Your task to perform on an android device: toggle sleep mode Image 0: 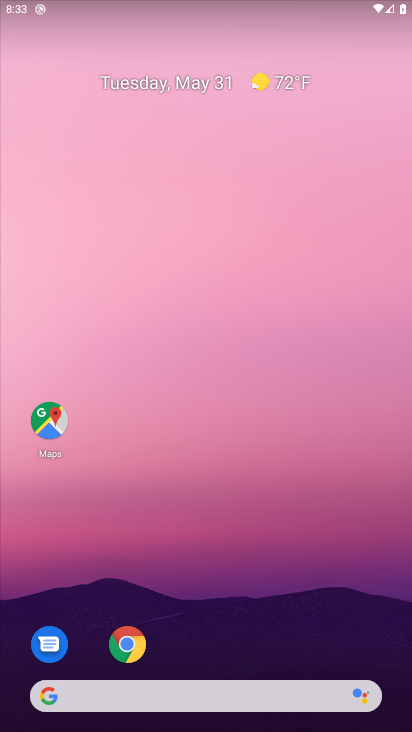
Step 0: press home button
Your task to perform on an android device: toggle sleep mode Image 1: 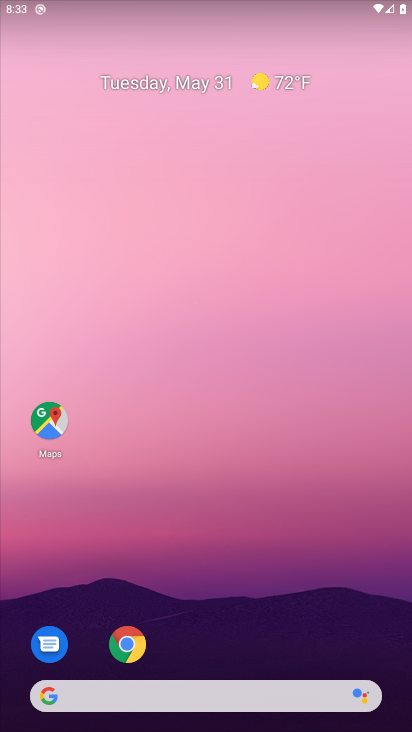
Step 1: drag from (209, 661) to (217, 131)
Your task to perform on an android device: toggle sleep mode Image 2: 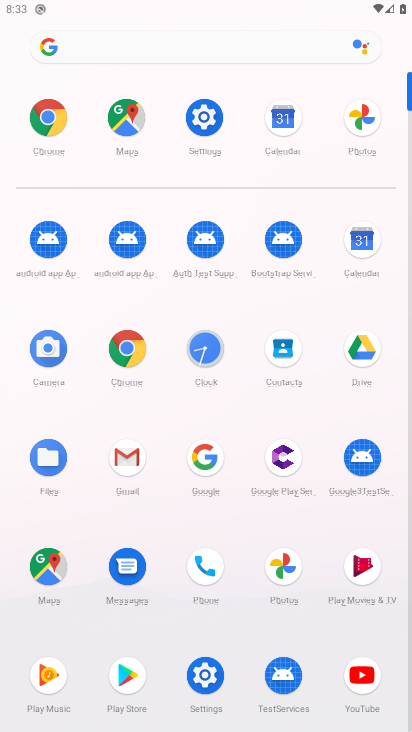
Step 2: click (201, 108)
Your task to perform on an android device: toggle sleep mode Image 3: 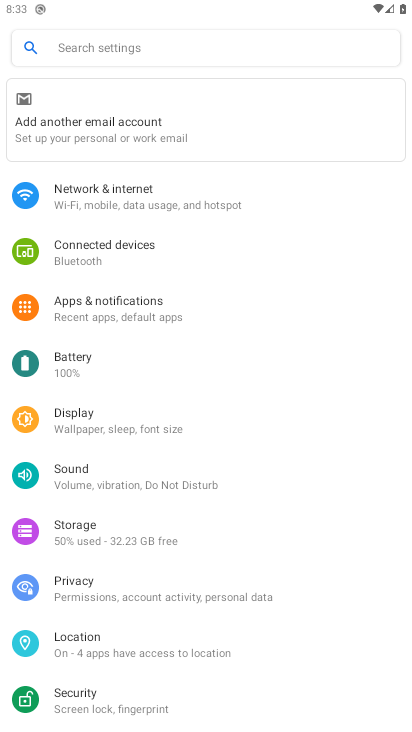
Step 3: click (102, 408)
Your task to perform on an android device: toggle sleep mode Image 4: 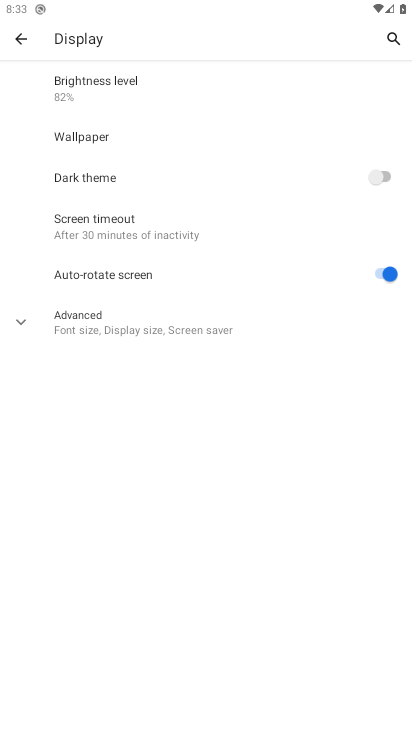
Step 4: click (26, 317)
Your task to perform on an android device: toggle sleep mode Image 5: 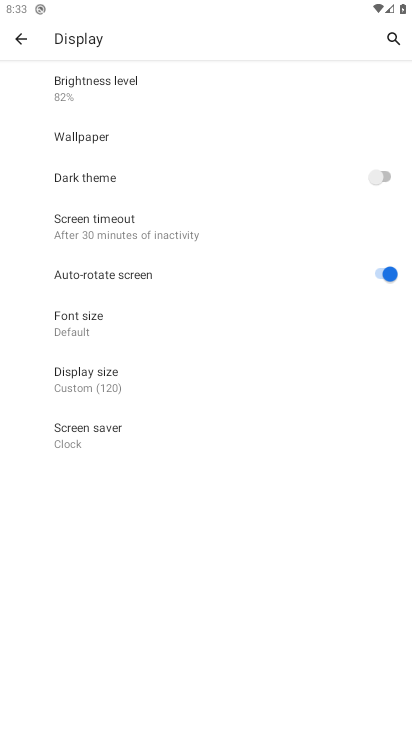
Step 5: task complete